Your task to perform on an android device: Turn off the flashlight Image 0: 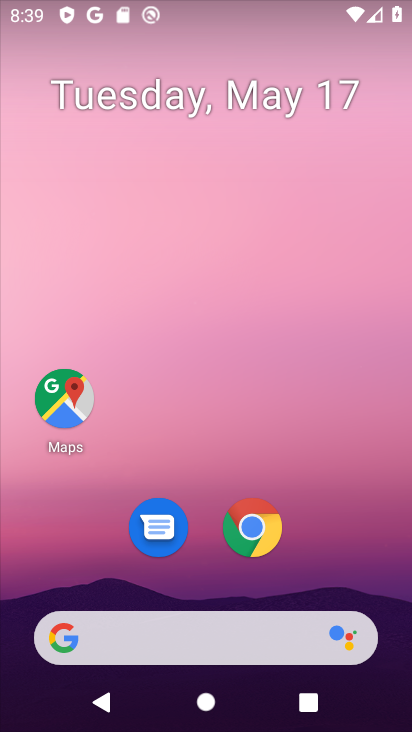
Step 0: drag from (233, 596) to (405, 114)
Your task to perform on an android device: Turn off the flashlight Image 1: 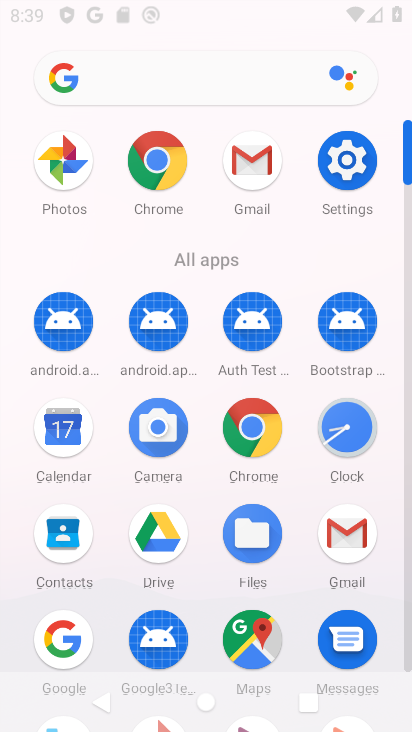
Step 1: click (369, 158)
Your task to perform on an android device: Turn off the flashlight Image 2: 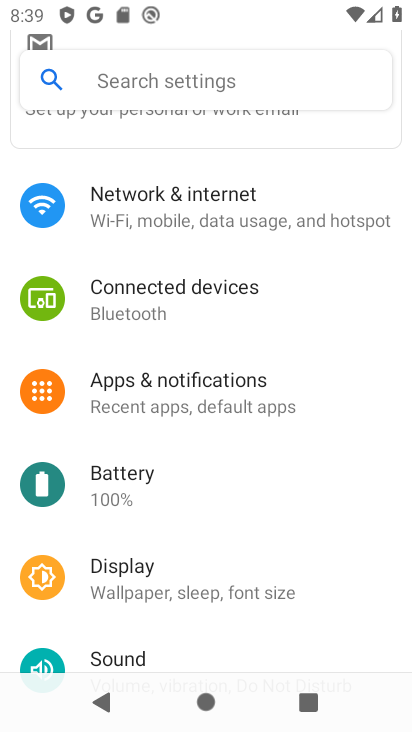
Step 2: drag from (300, 584) to (278, 128)
Your task to perform on an android device: Turn off the flashlight Image 3: 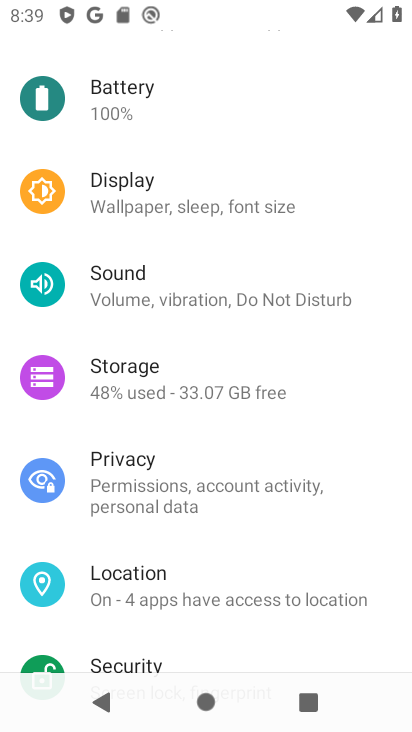
Step 3: click (152, 202)
Your task to perform on an android device: Turn off the flashlight Image 4: 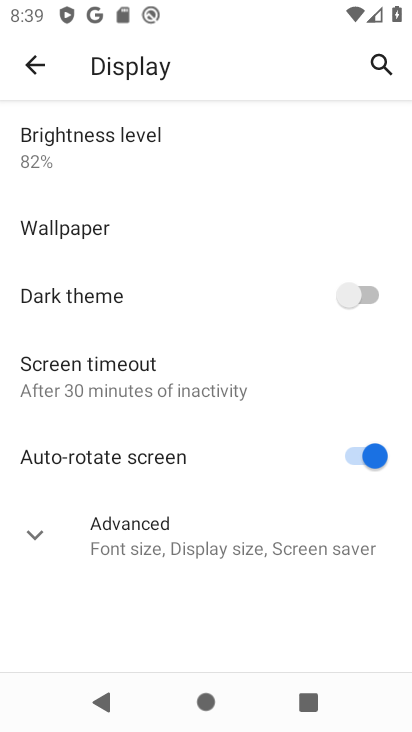
Step 4: task complete